Your task to perform on an android device: toggle location history Image 0: 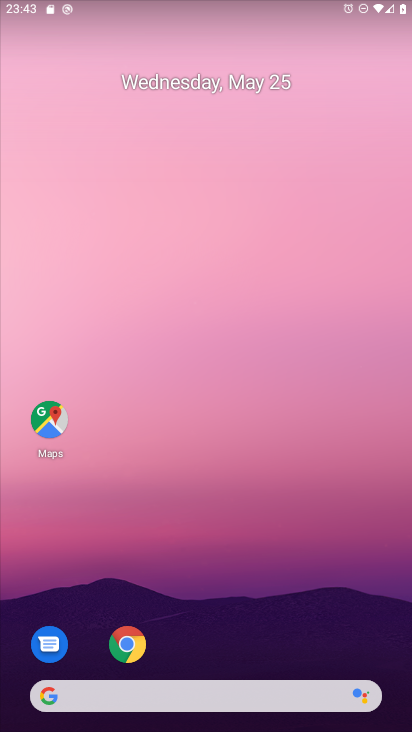
Step 0: press home button
Your task to perform on an android device: toggle location history Image 1: 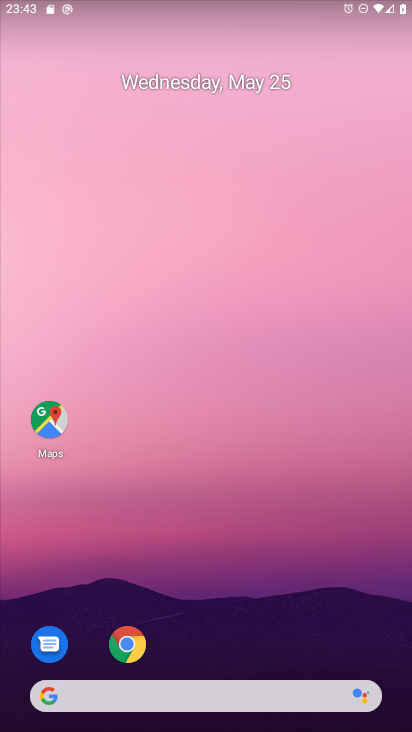
Step 1: drag from (219, 666) to (257, 17)
Your task to perform on an android device: toggle location history Image 2: 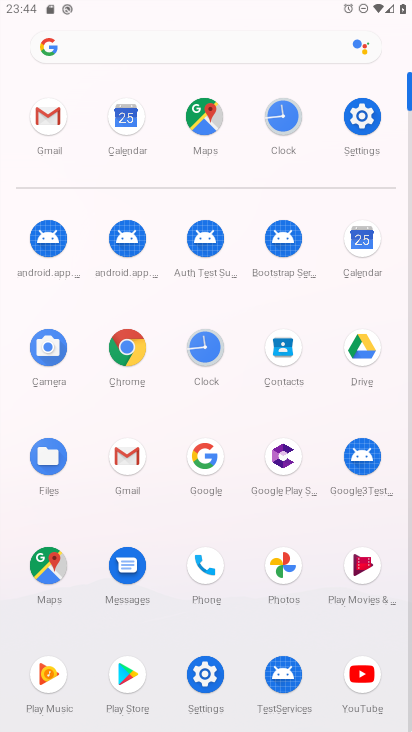
Step 2: click (357, 109)
Your task to perform on an android device: toggle location history Image 3: 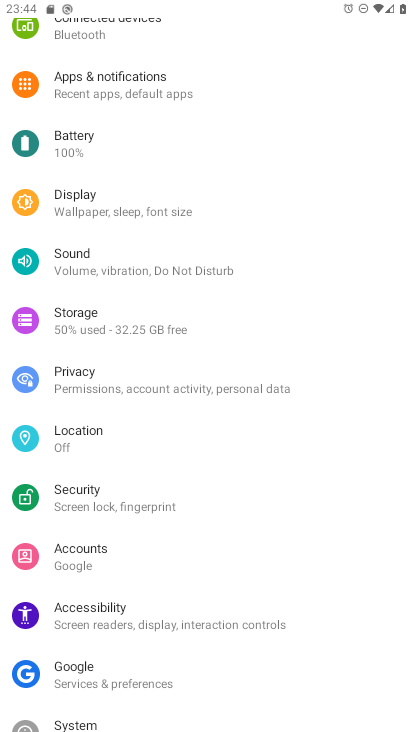
Step 3: click (114, 432)
Your task to perform on an android device: toggle location history Image 4: 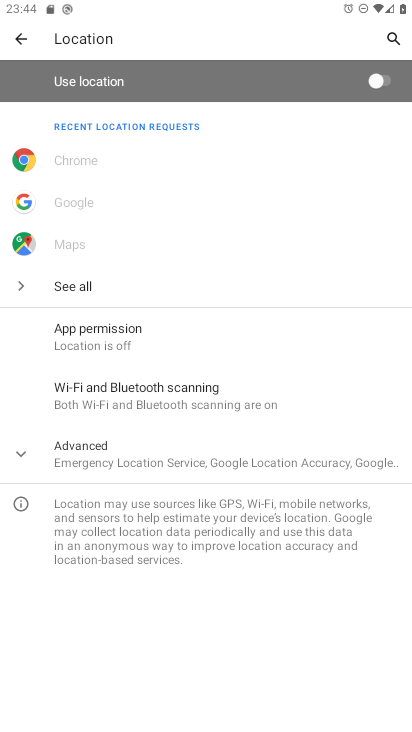
Step 4: click (25, 447)
Your task to perform on an android device: toggle location history Image 5: 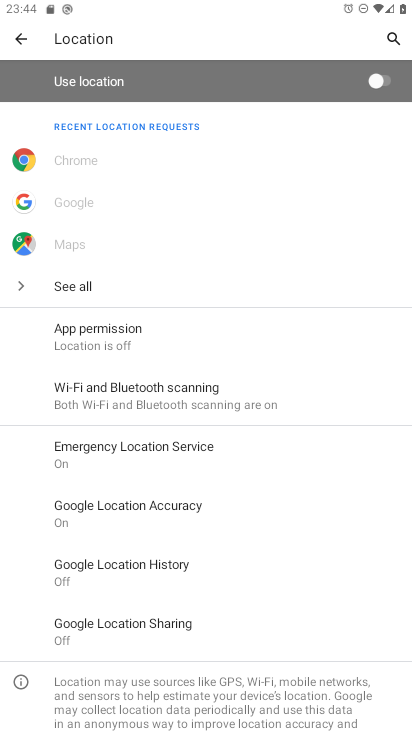
Step 5: click (129, 575)
Your task to perform on an android device: toggle location history Image 6: 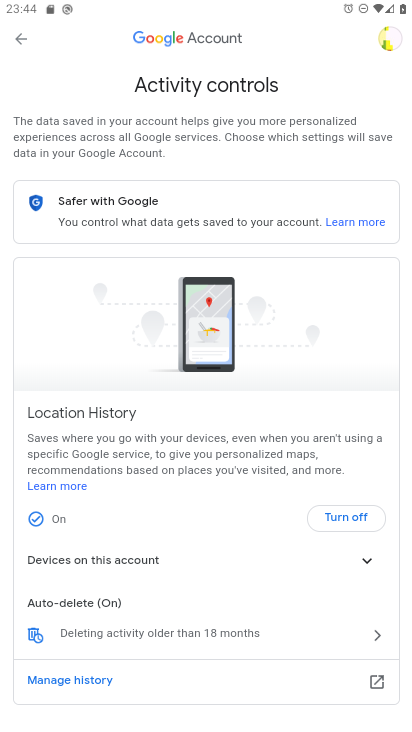
Step 6: drag from (187, 658) to (198, 299)
Your task to perform on an android device: toggle location history Image 7: 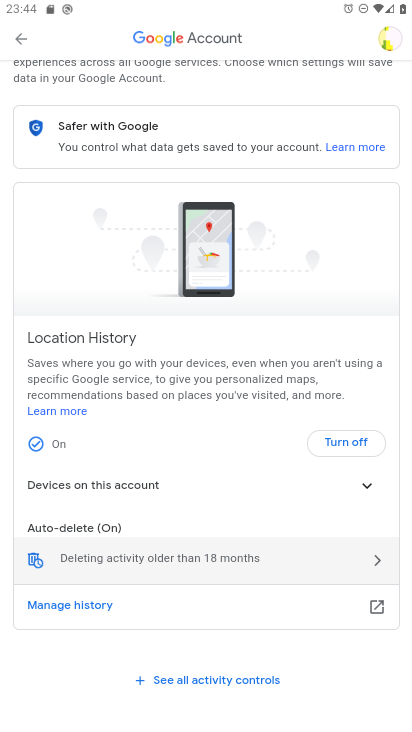
Step 7: click (347, 440)
Your task to perform on an android device: toggle location history Image 8: 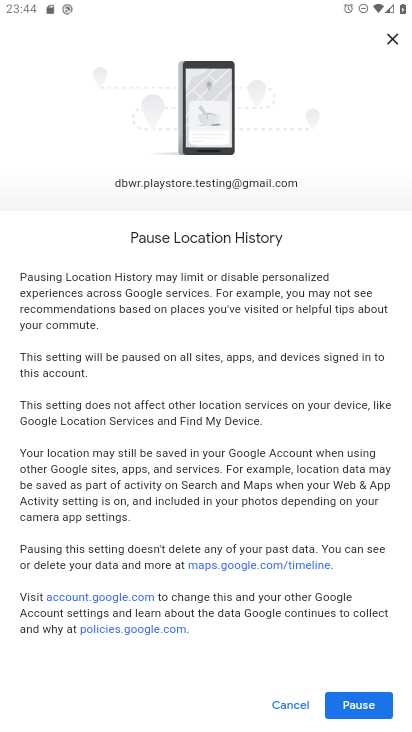
Step 8: drag from (262, 613) to (277, 222)
Your task to perform on an android device: toggle location history Image 9: 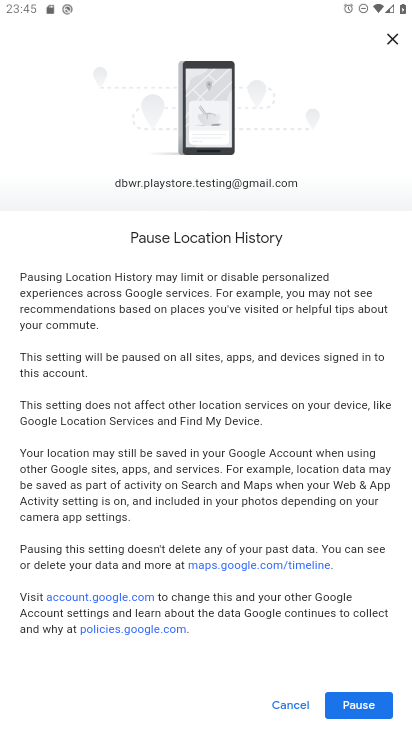
Step 9: click (355, 703)
Your task to perform on an android device: toggle location history Image 10: 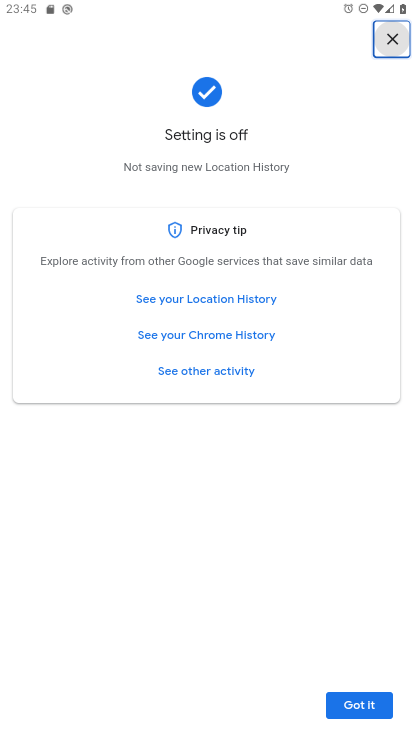
Step 10: click (356, 706)
Your task to perform on an android device: toggle location history Image 11: 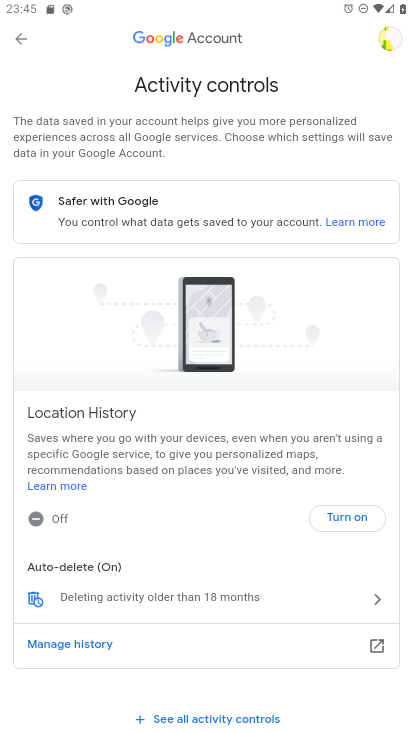
Step 11: task complete